Your task to perform on an android device: Open the phone app and click the voicemail tab. Image 0: 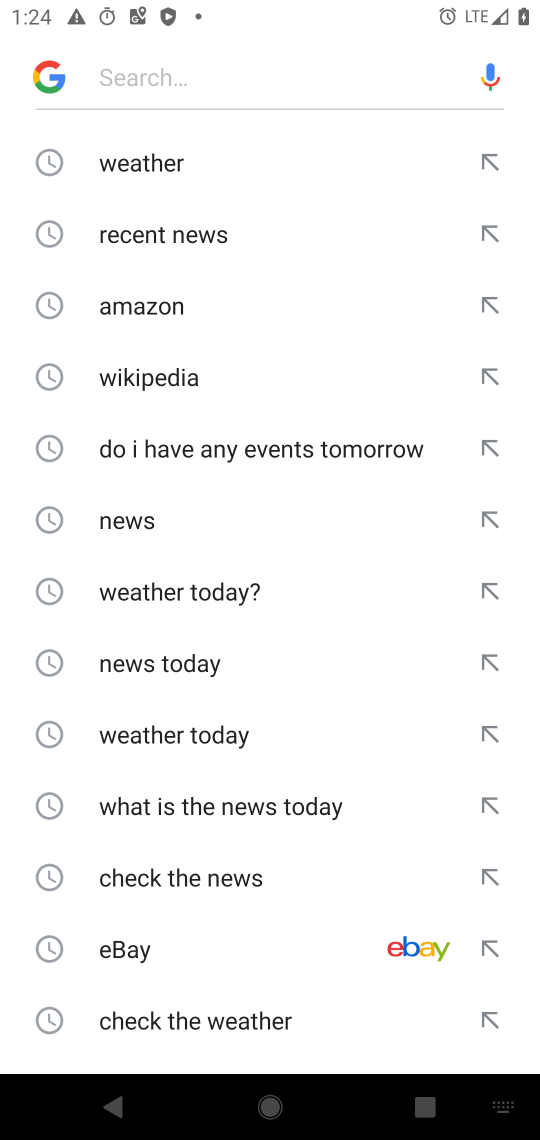
Step 0: press home button
Your task to perform on an android device: Open the phone app and click the voicemail tab. Image 1: 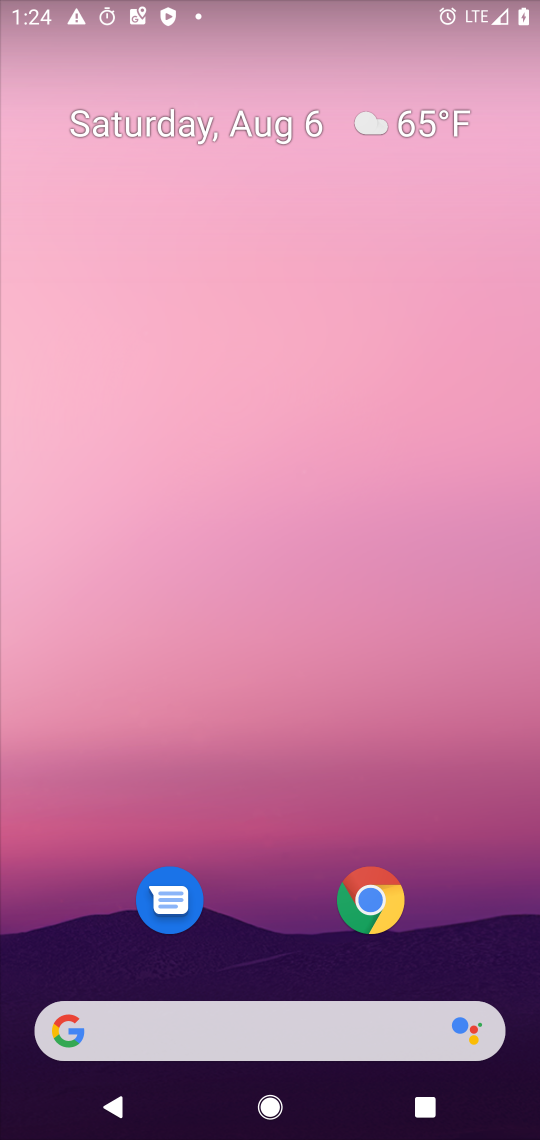
Step 1: drag from (244, 809) to (207, 326)
Your task to perform on an android device: Open the phone app and click the voicemail tab. Image 2: 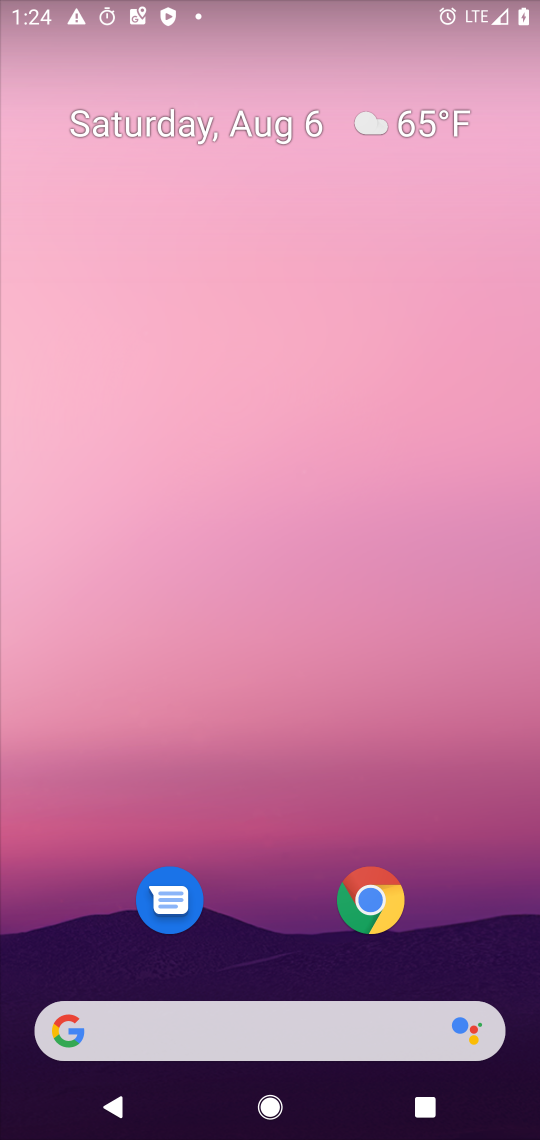
Step 2: drag from (246, 875) to (251, 35)
Your task to perform on an android device: Open the phone app and click the voicemail tab. Image 3: 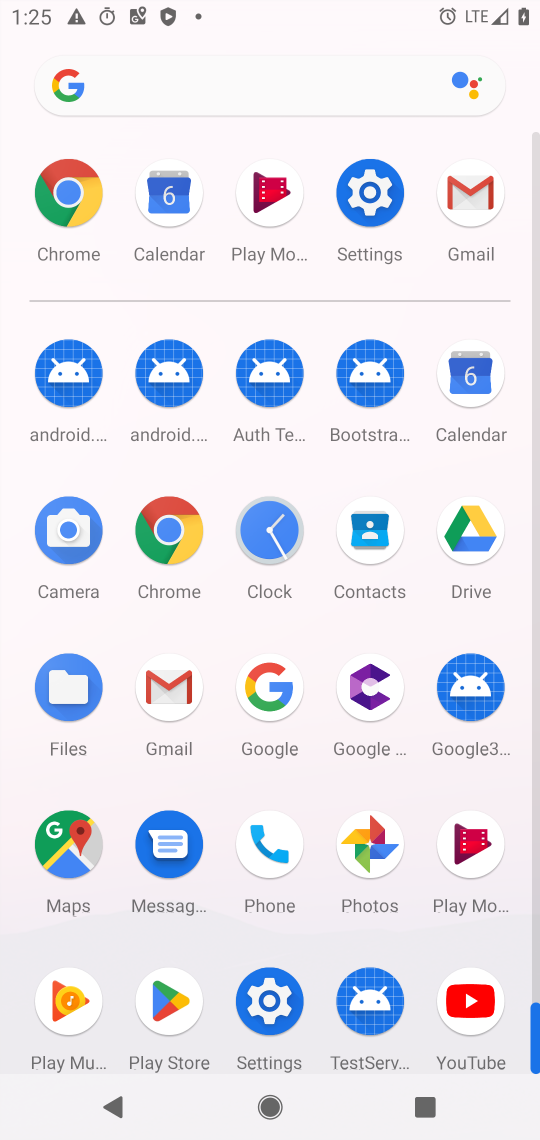
Step 3: click (256, 848)
Your task to perform on an android device: Open the phone app and click the voicemail tab. Image 4: 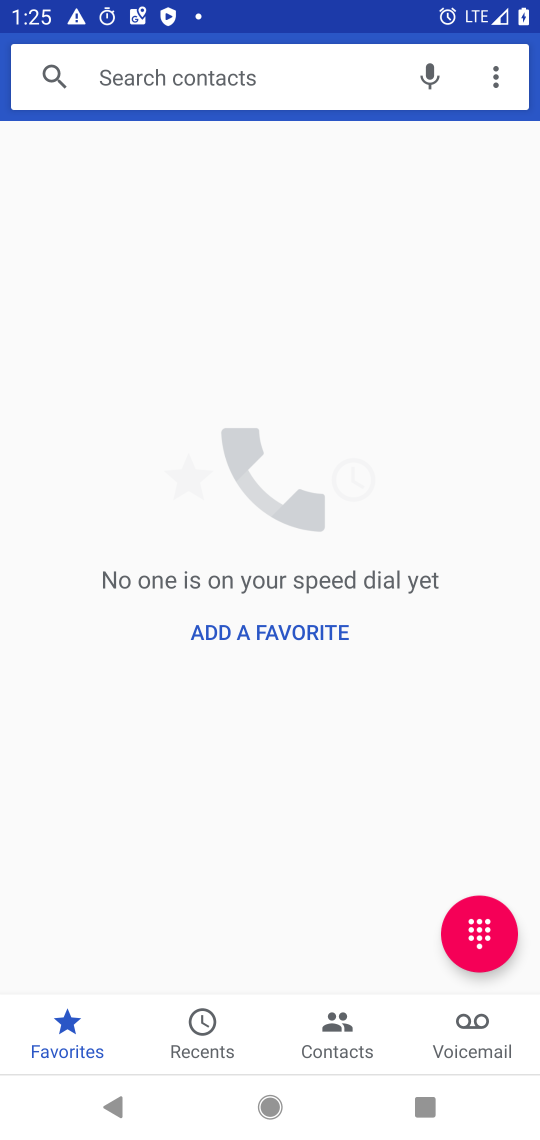
Step 4: click (457, 1027)
Your task to perform on an android device: Open the phone app and click the voicemail tab. Image 5: 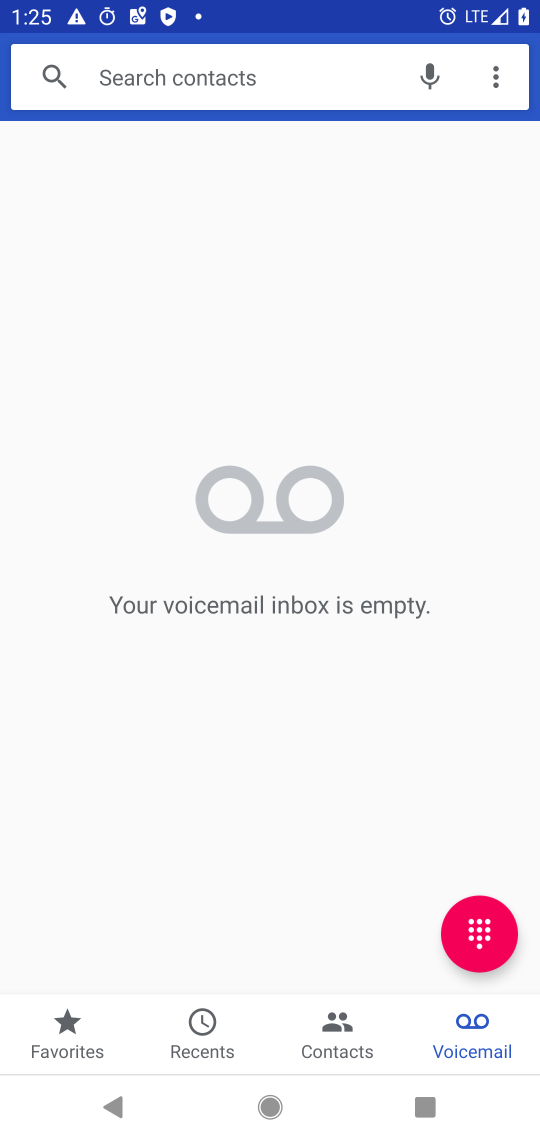
Step 5: task complete